Your task to perform on an android device: Do I have any events this weekend? Image 0: 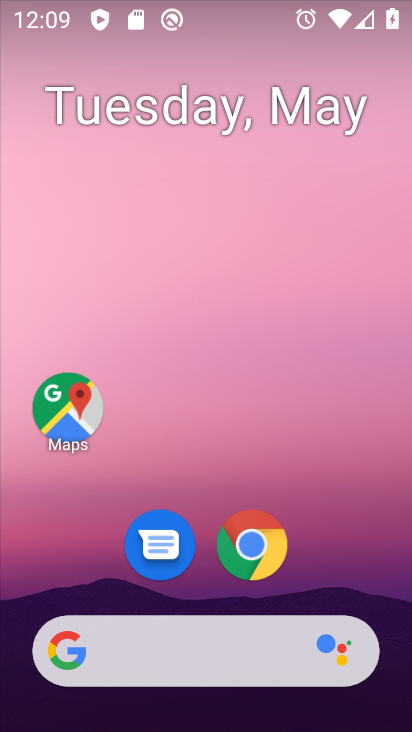
Step 0: drag from (310, 590) to (291, 155)
Your task to perform on an android device: Do I have any events this weekend? Image 1: 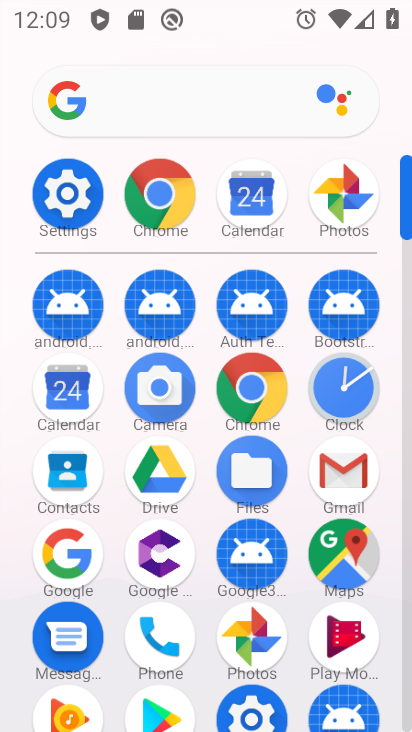
Step 1: click (39, 418)
Your task to perform on an android device: Do I have any events this weekend? Image 2: 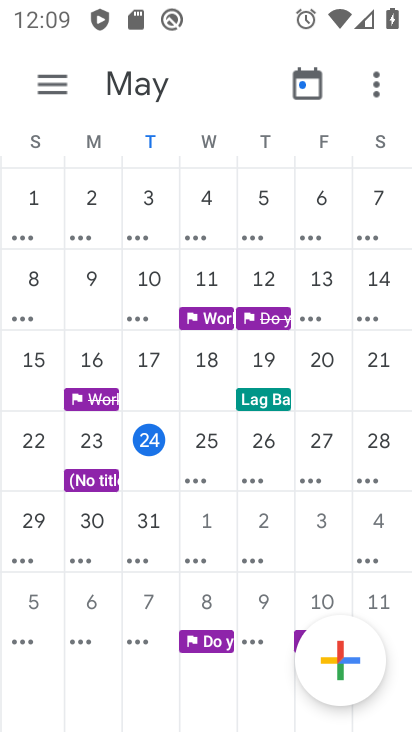
Step 2: click (52, 96)
Your task to perform on an android device: Do I have any events this weekend? Image 3: 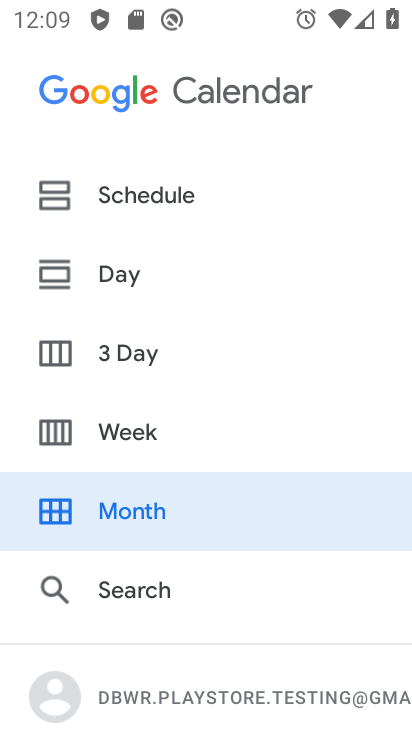
Step 3: click (171, 448)
Your task to perform on an android device: Do I have any events this weekend? Image 4: 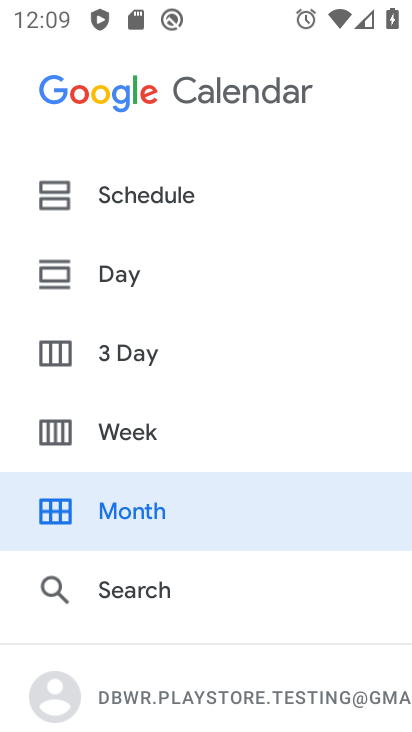
Step 4: click (172, 443)
Your task to perform on an android device: Do I have any events this weekend? Image 5: 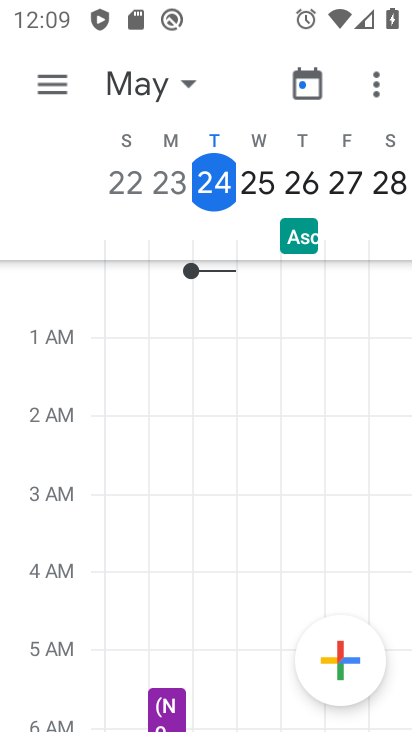
Step 5: task complete